Your task to perform on an android device: turn off smart reply in the gmail app Image 0: 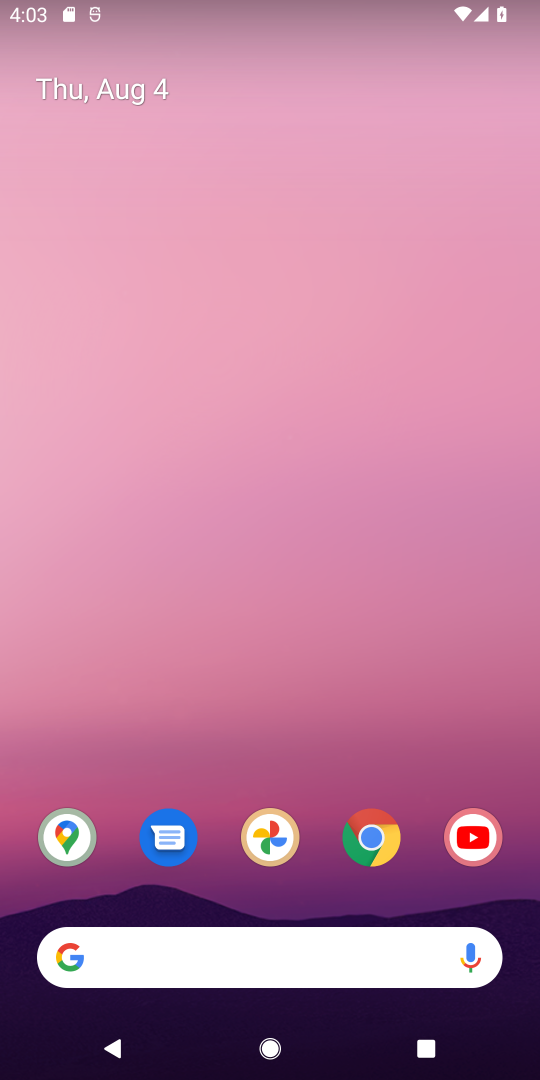
Step 0: drag from (221, 790) to (276, 6)
Your task to perform on an android device: turn off smart reply in the gmail app Image 1: 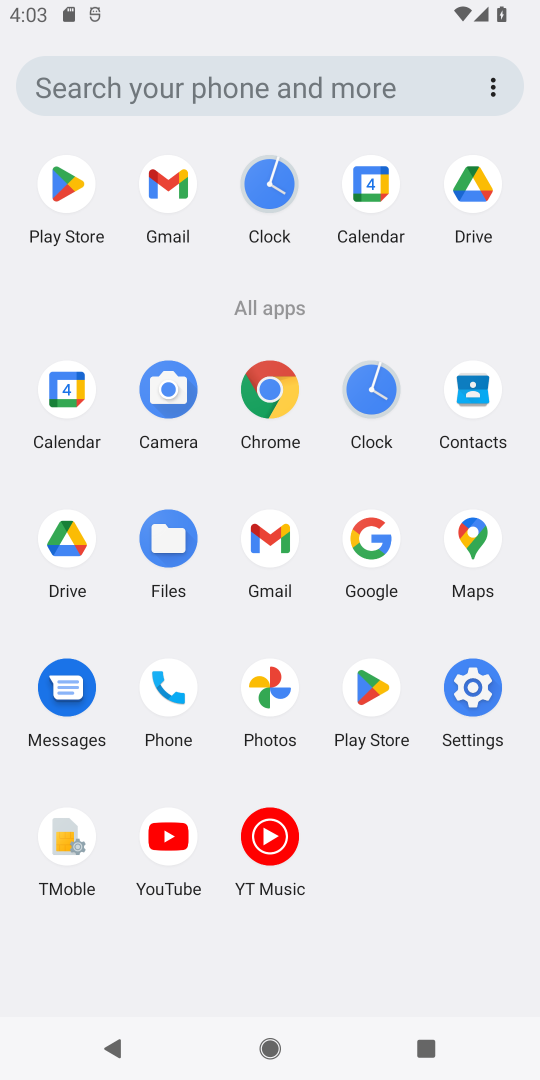
Step 1: click (268, 533)
Your task to perform on an android device: turn off smart reply in the gmail app Image 2: 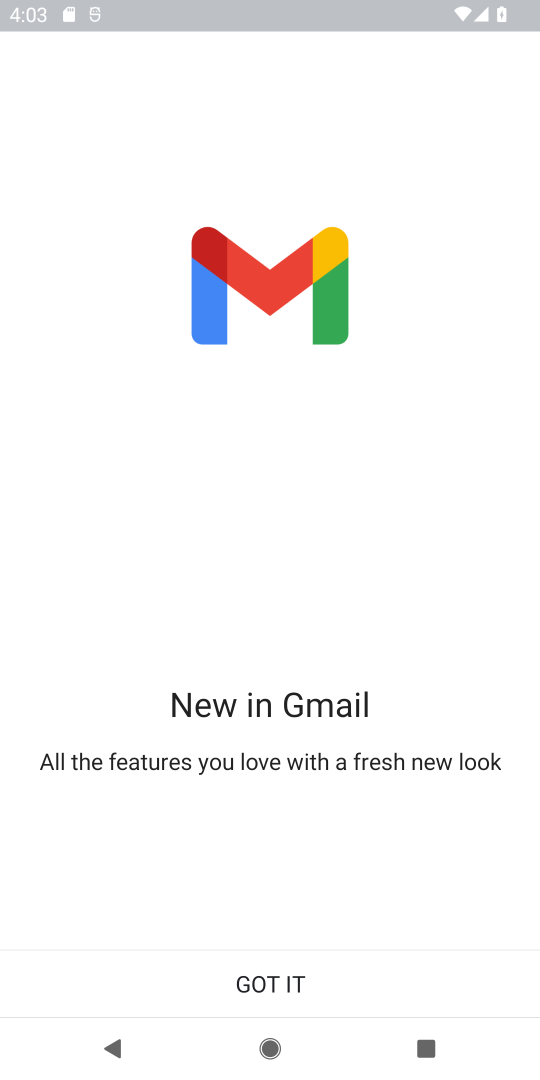
Step 2: click (267, 985)
Your task to perform on an android device: turn off smart reply in the gmail app Image 3: 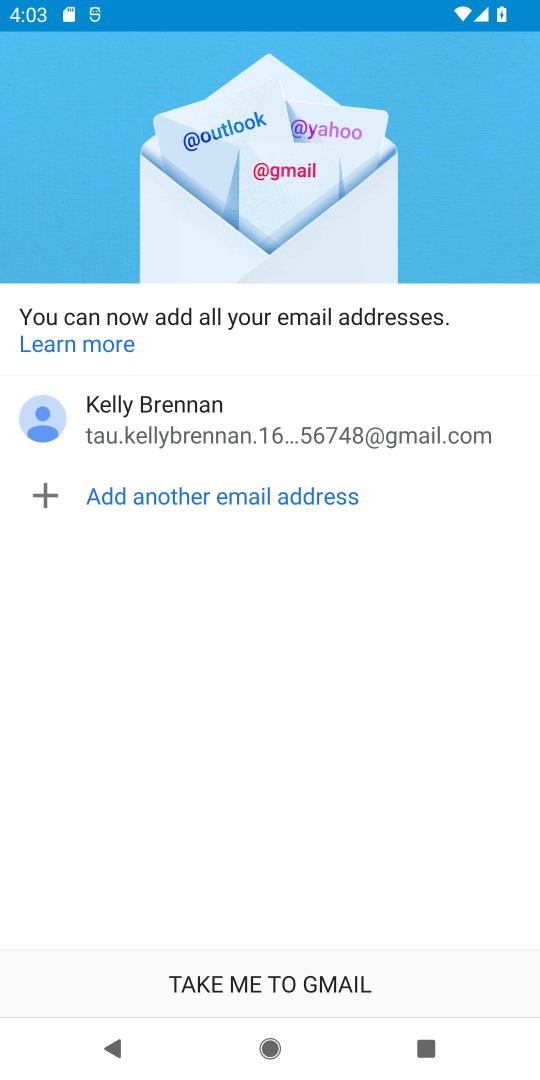
Step 3: click (267, 974)
Your task to perform on an android device: turn off smart reply in the gmail app Image 4: 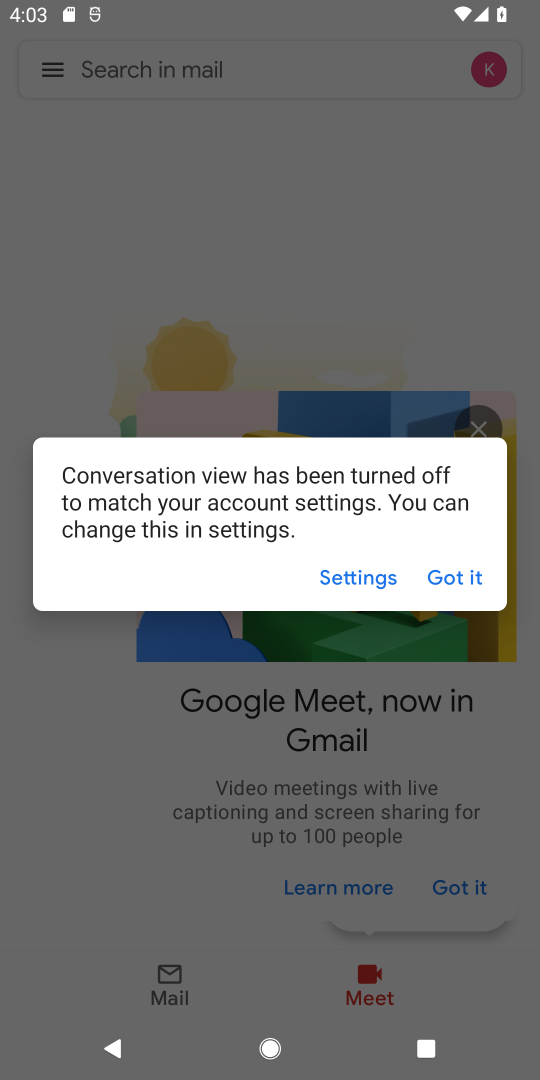
Step 4: click (432, 584)
Your task to perform on an android device: turn off smart reply in the gmail app Image 5: 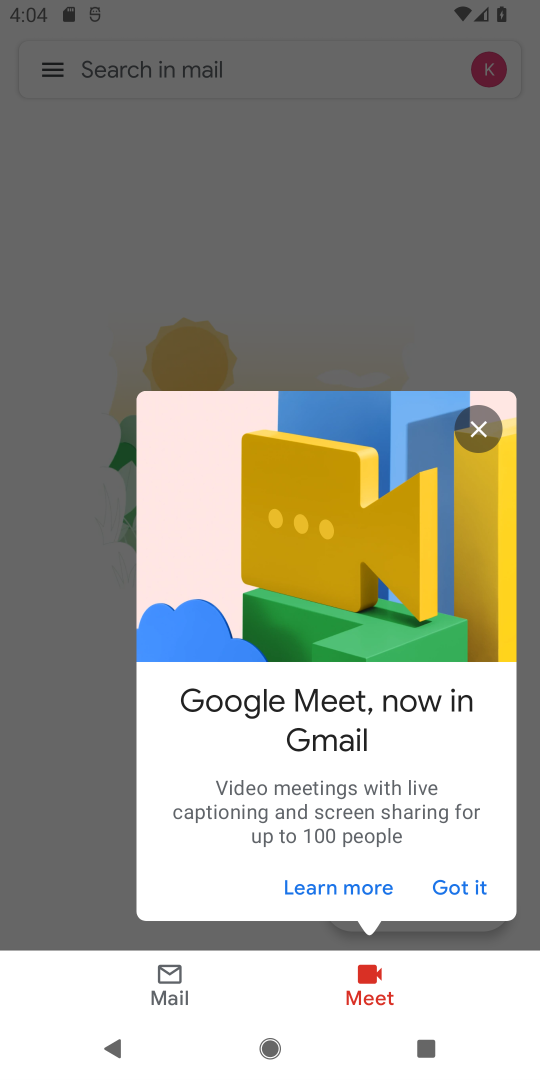
Step 5: click (459, 882)
Your task to perform on an android device: turn off smart reply in the gmail app Image 6: 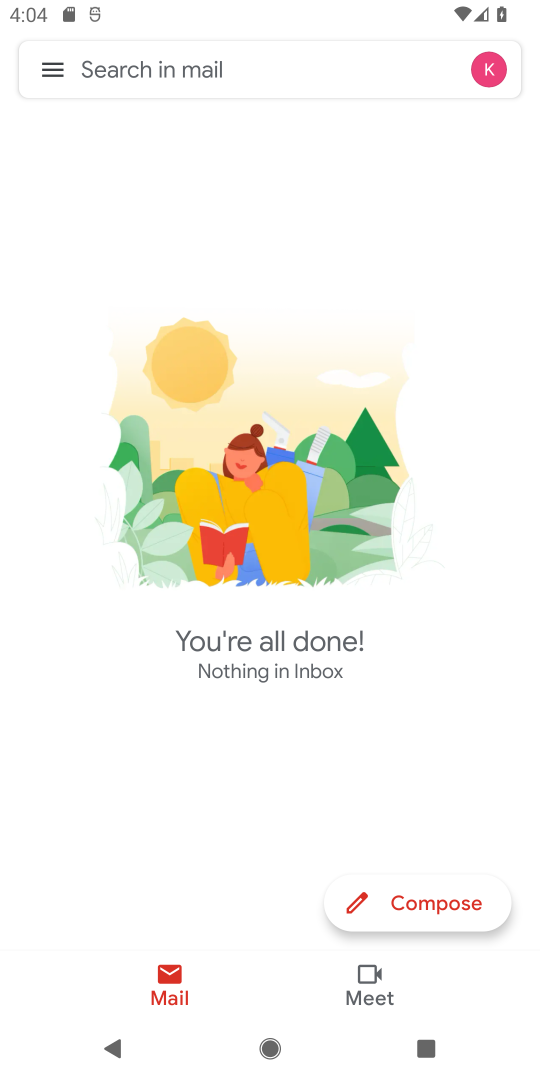
Step 6: click (43, 77)
Your task to perform on an android device: turn off smart reply in the gmail app Image 7: 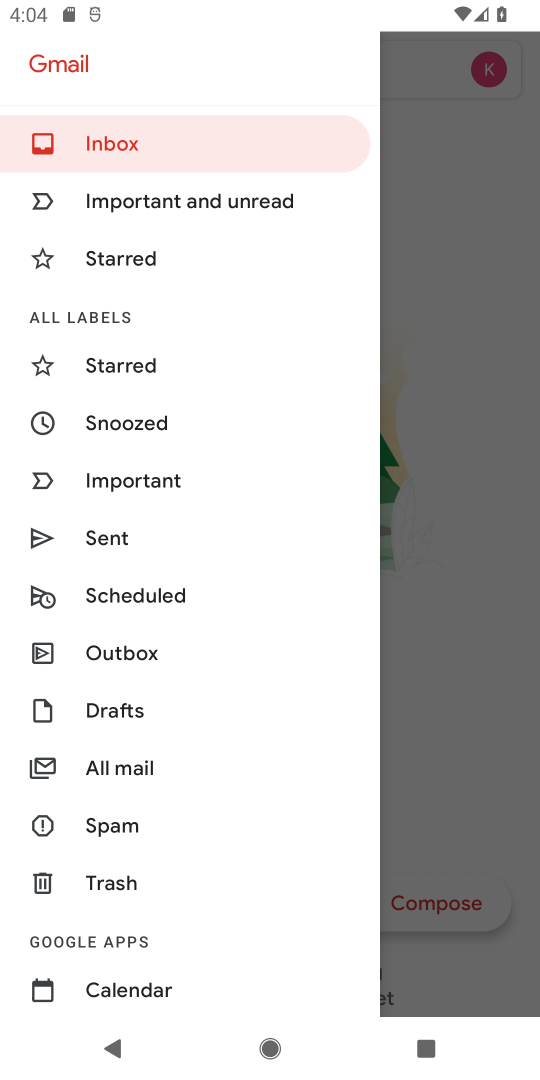
Step 7: drag from (178, 906) to (214, 91)
Your task to perform on an android device: turn off smart reply in the gmail app Image 8: 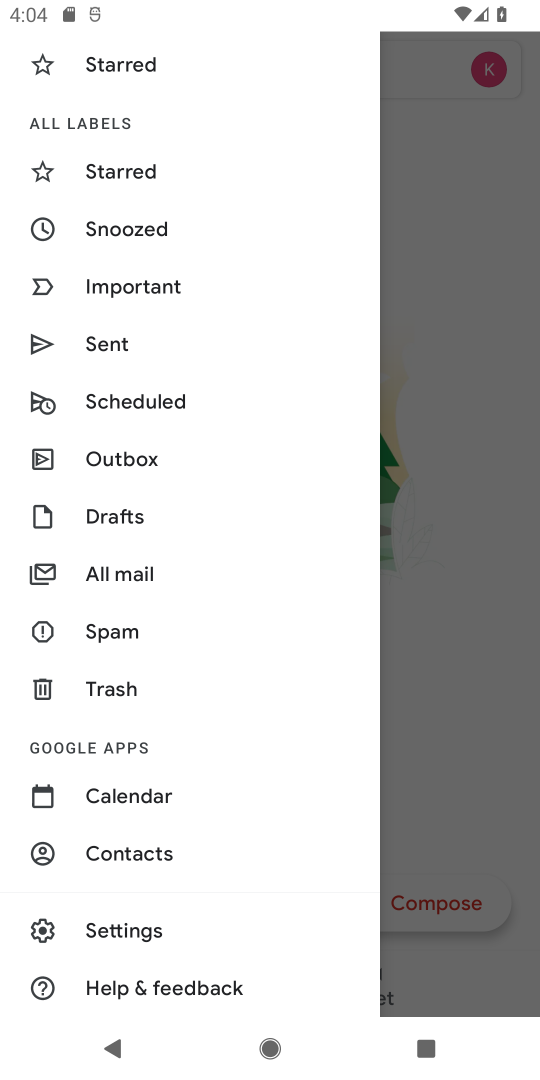
Step 8: click (169, 919)
Your task to perform on an android device: turn off smart reply in the gmail app Image 9: 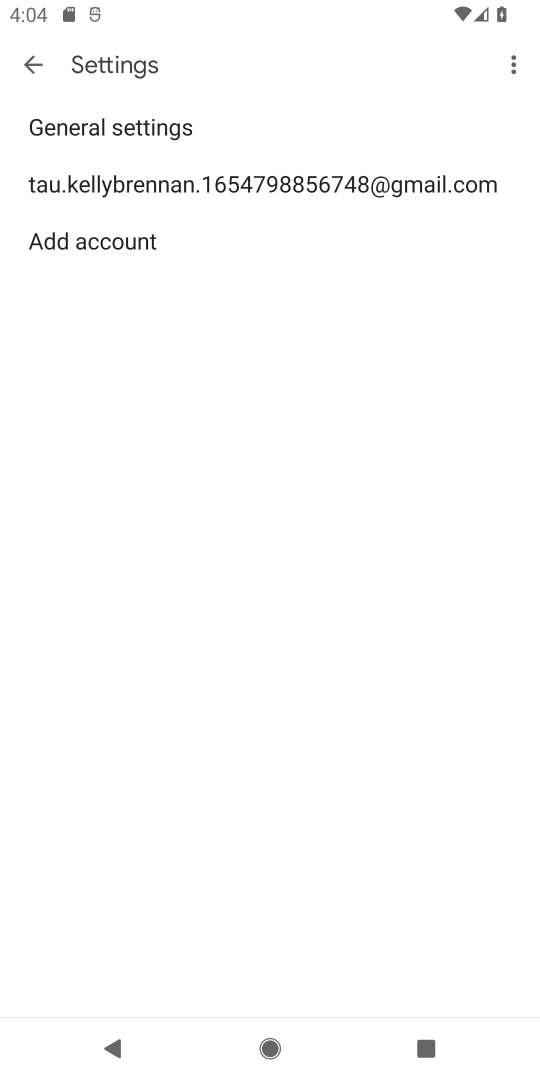
Step 9: click (145, 168)
Your task to perform on an android device: turn off smart reply in the gmail app Image 10: 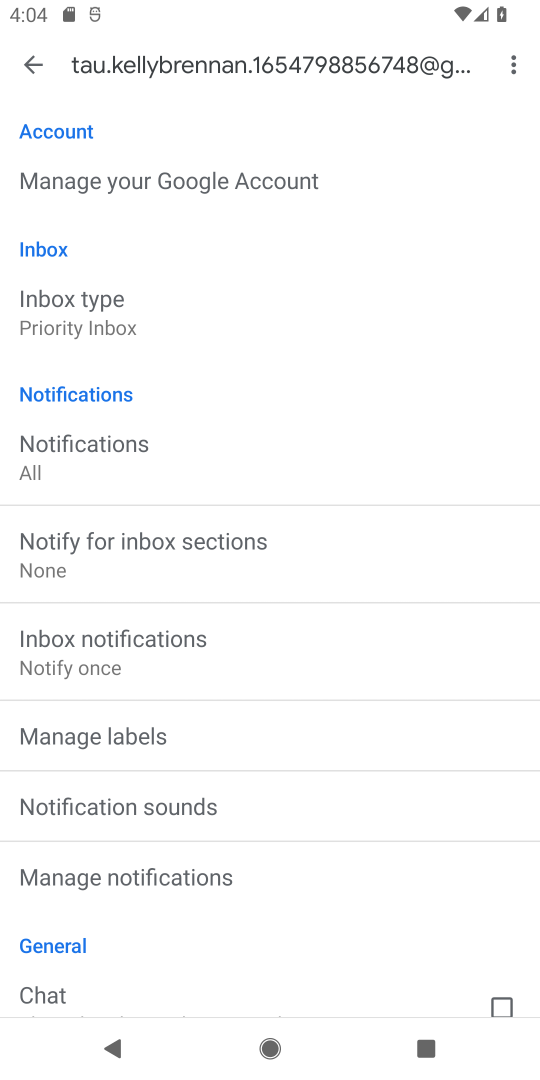
Step 10: drag from (213, 905) to (248, 37)
Your task to perform on an android device: turn off smart reply in the gmail app Image 11: 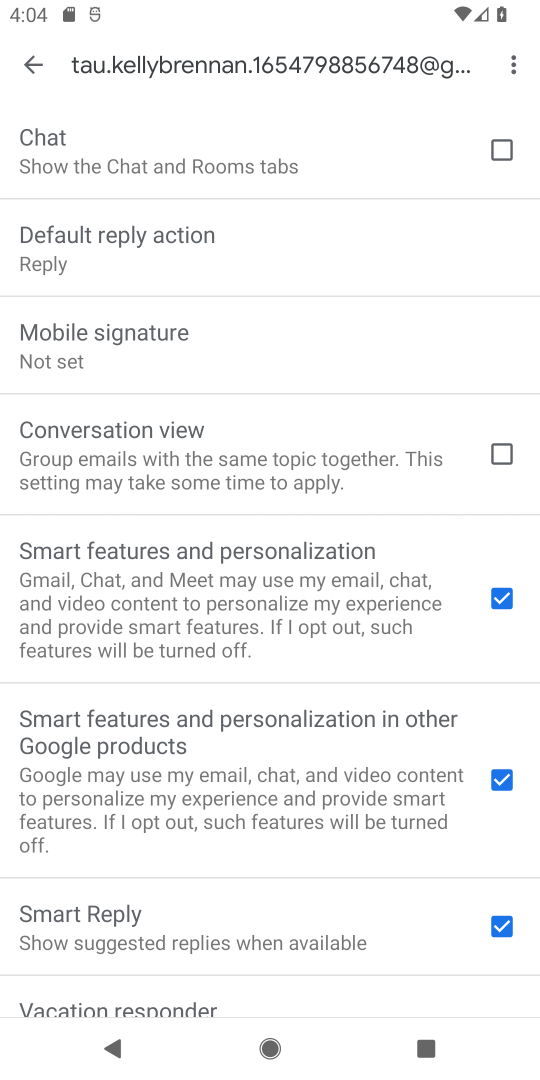
Step 11: click (497, 923)
Your task to perform on an android device: turn off smart reply in the gmail app Image 12: 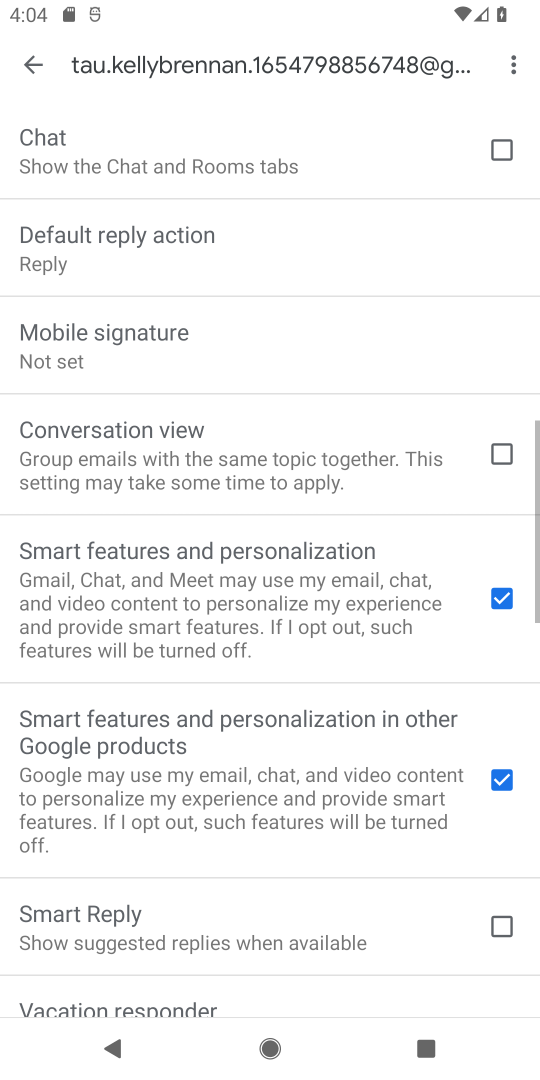
Step 12: task complete